Your task to perform on an android device: Open Chrome and go to settings Image 0: 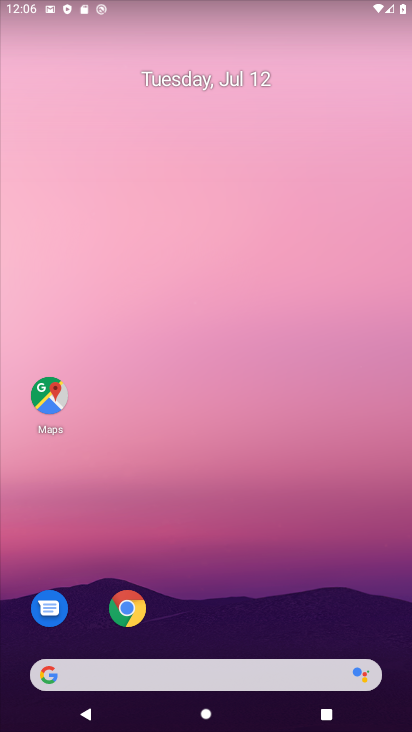
Step 0: drag from (187, 642) to (121, 110)
Your task to perform on an android device: Open Chrome and go to settings Image 1: 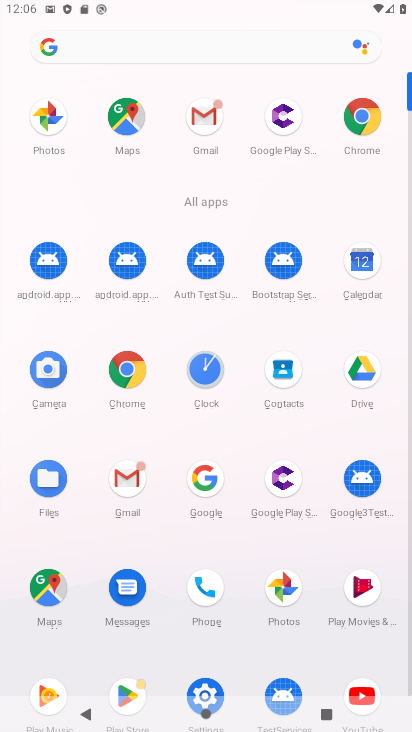
Step 1: click (386, 124)
Your task to perform on an android device: Open Chrome and go to settings Image 2: 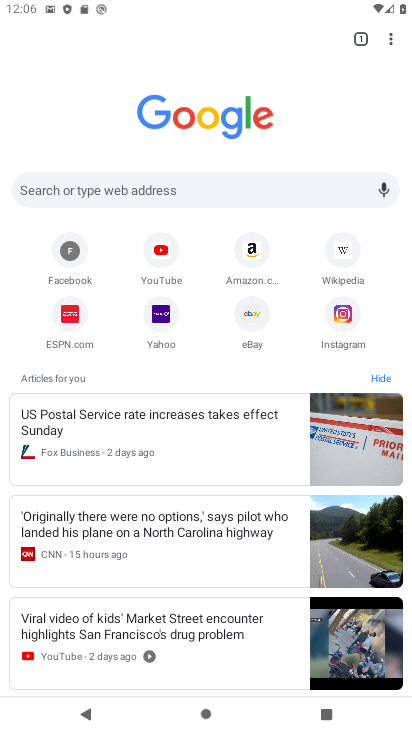
Step 2: click (384, 32)
Your task to perform on an android device: Open Chrome and go to settings Image 3: 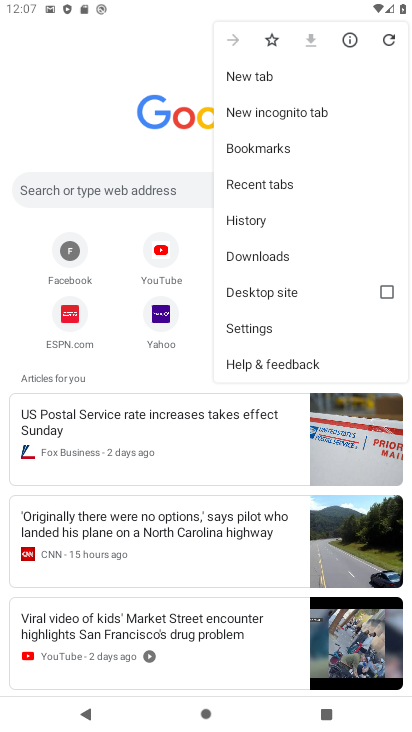
Step 3: click (257, 317)
Your task to perform on an android device: Open Chrome and go to settings Image 4: 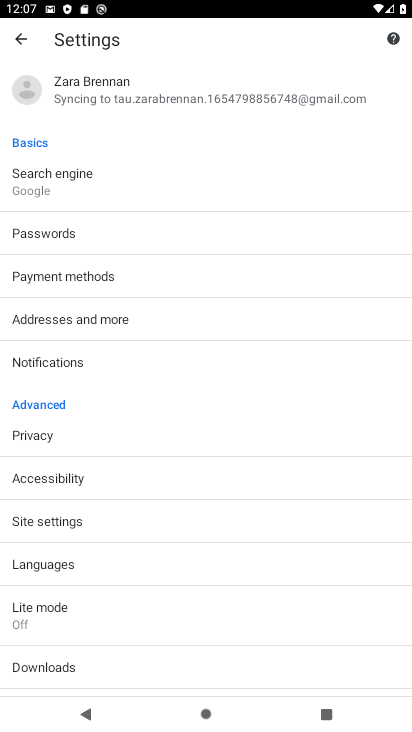
Step 4: task complete